Your task to perform on an android device: Go to settings Image 0: 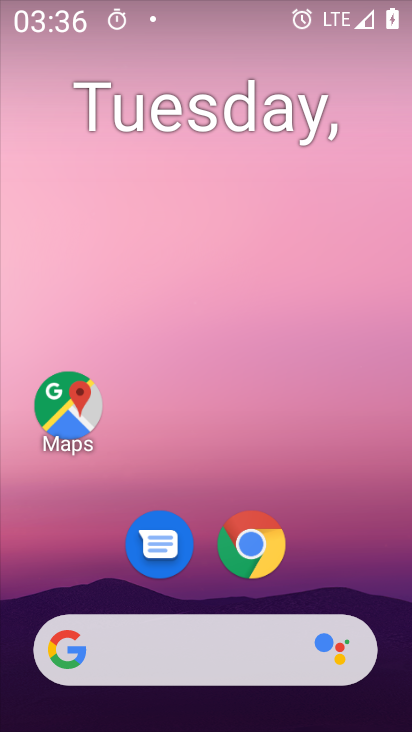
Step 0: drag from (329, 501) to (235, 87)
Your task to perform on an android device: Go to settings Image 1: 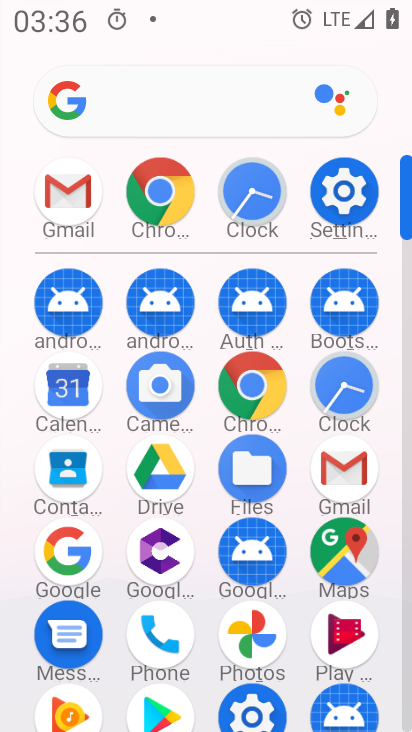
Step 1: drag from (186, 593) to (202, 223)
Your task to perform on an android device: Go to settings Image 2: 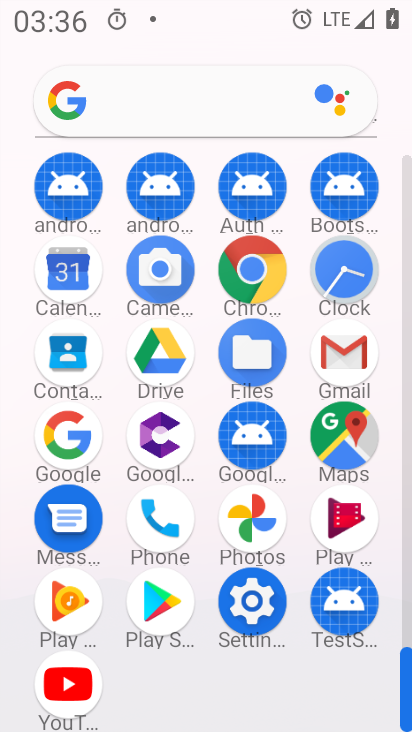
Step 2: click (249, 600)
Your task to perform on an android device: Go to settings Image 3: 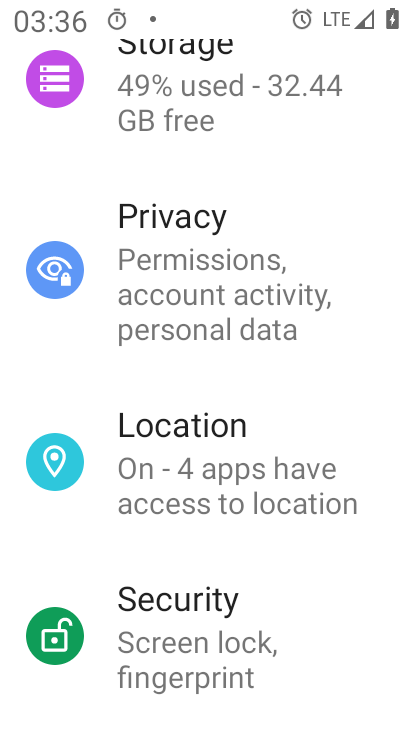
Step 3: task complete